Your task to perform on an android device: open app "DoorDash - Food Delivery" (install if not already installed) Image 0: 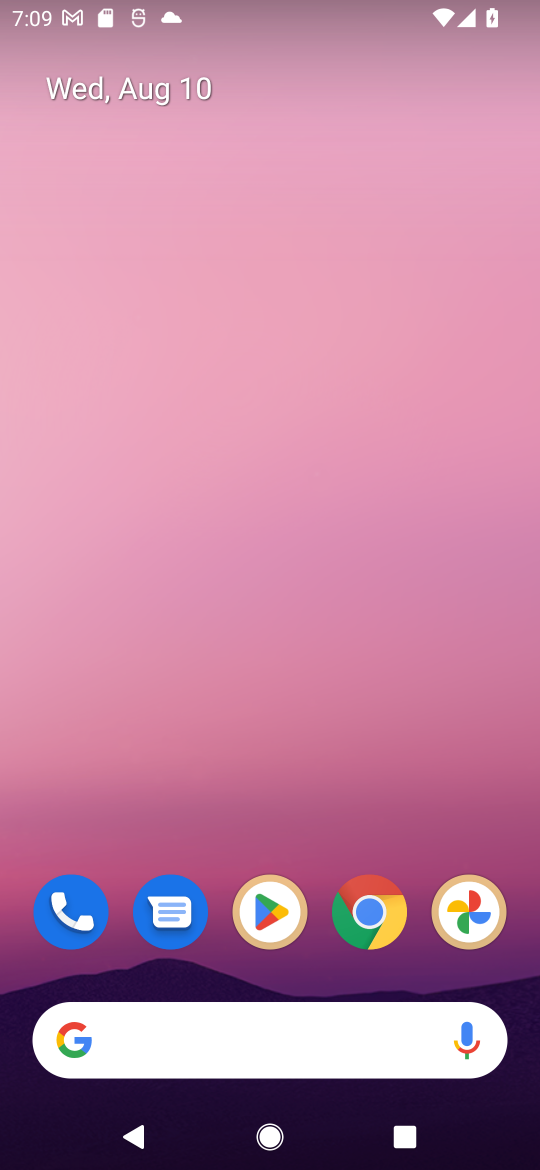
Step 0: drag from (516, 940) to (394, 58)
Your task to perform on an android device: open app "DoorDash - Food Delivery" (install if not already installed) Image 1: 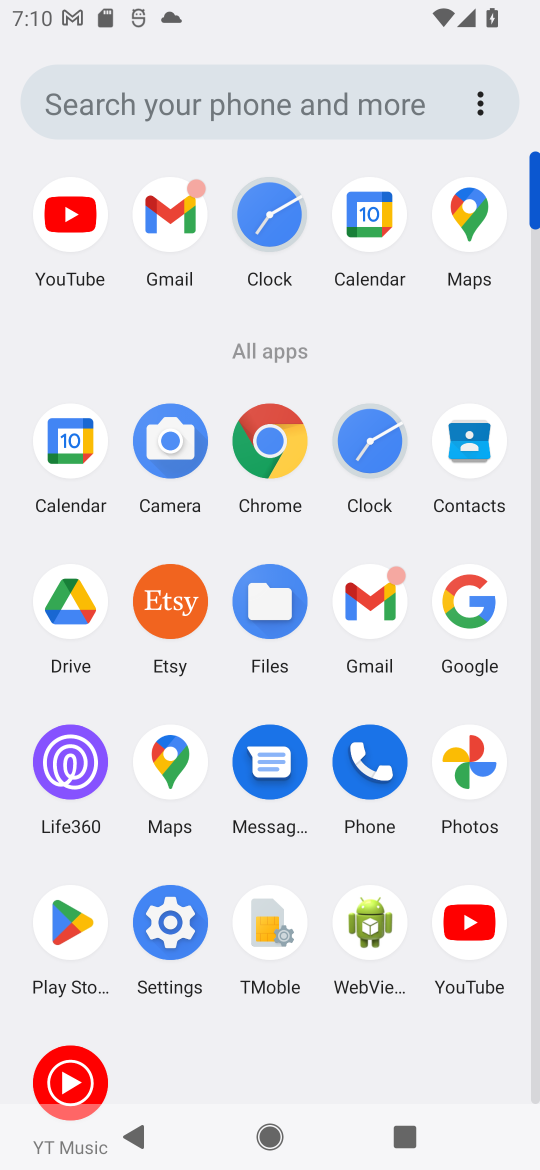
Step 1: click (63, 919)
Your task to perform on an android device: open app "DoorDash - Food Delivery" (install if not already installed) Image 2: 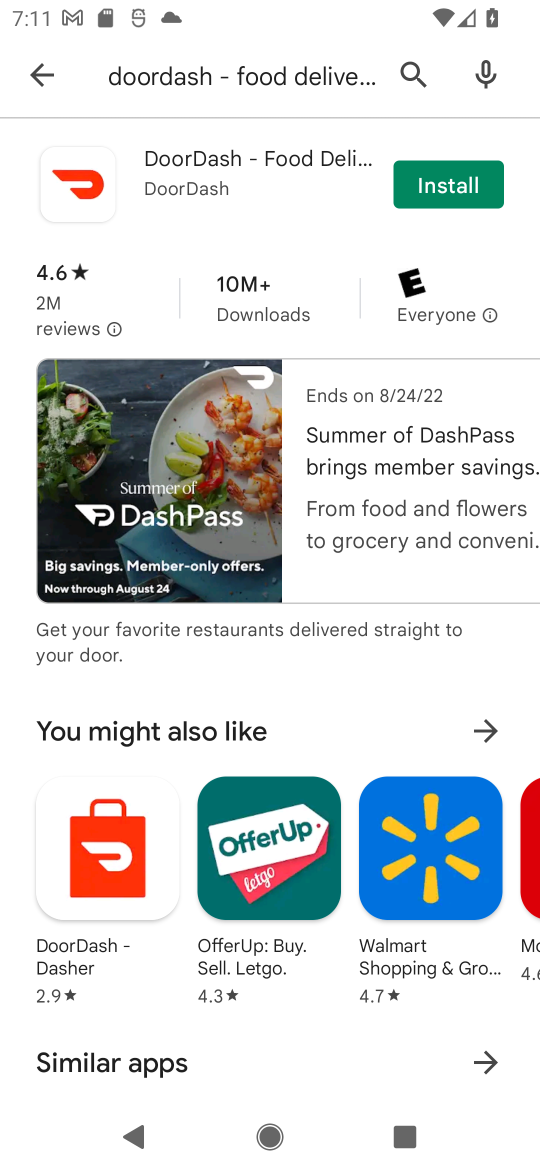
Step 2: task complete